Your task to perform on an android device: Open Google Chrome Image 0: 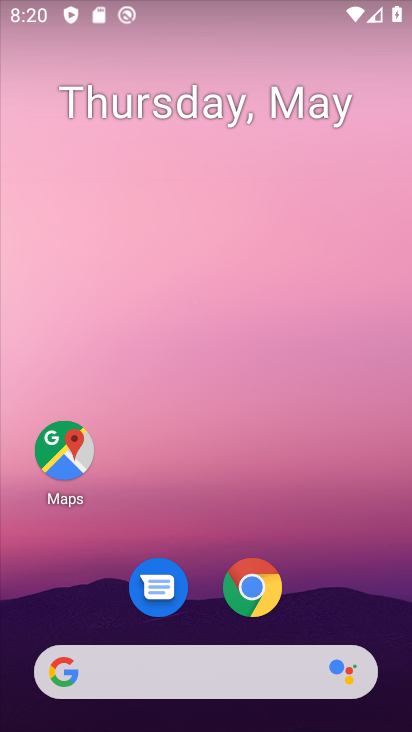
Step 0: click (262, 591)
Your task to perform on an android device: Open Google Chrome Image 1: 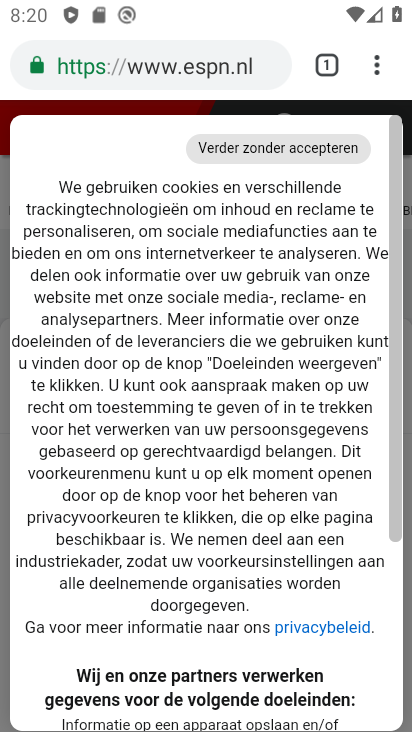
Step 1: drag from (393, 279) to (392, 494)
Your task to perform on an android device: Open Google Chrome Image 2: 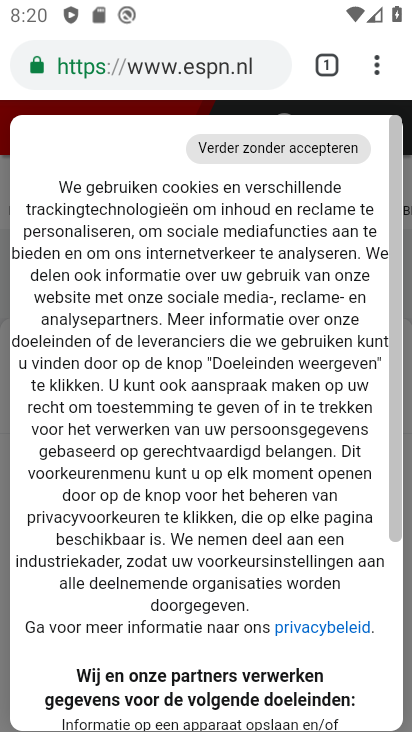
Step 2: click (336, 60)
Your task to perform on an android device: Open Google Chrome Image 3: 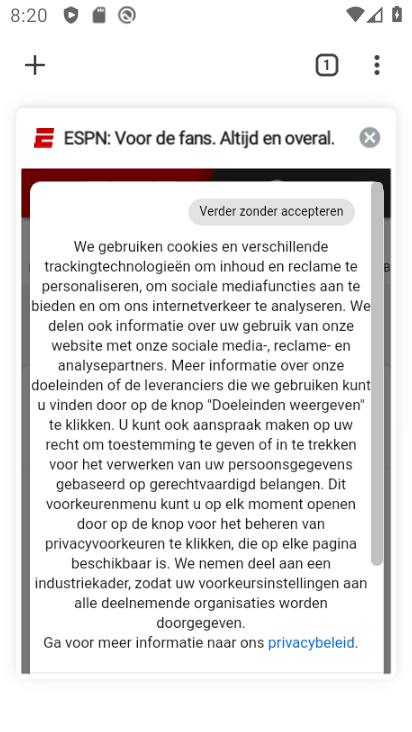
Step 3: click (373, 143)
Your task to perform on an android device: Open Google Chrome Image 4: 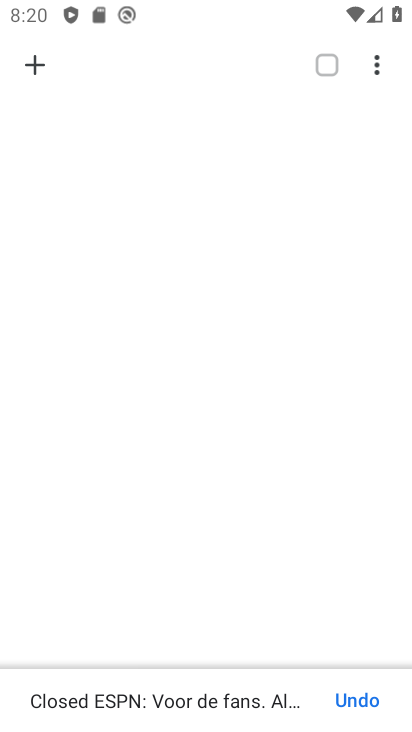
Step 4: click (33, 59)
Your task to perform on an android device: Open Google Chrome Image 5: 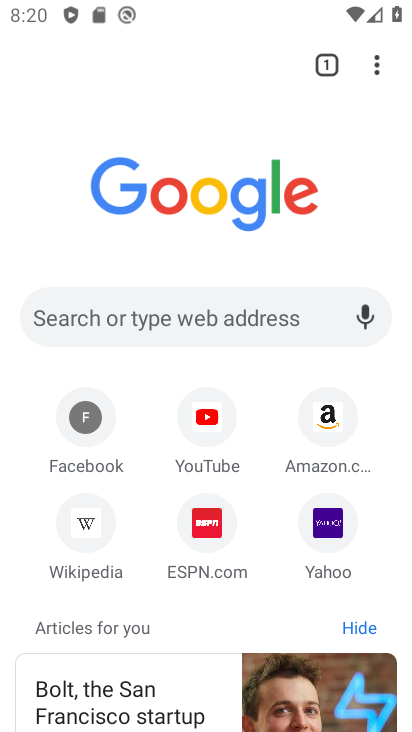
Step 5: task complete